Your task to perform on an android device: Go to notification settings Image 0: 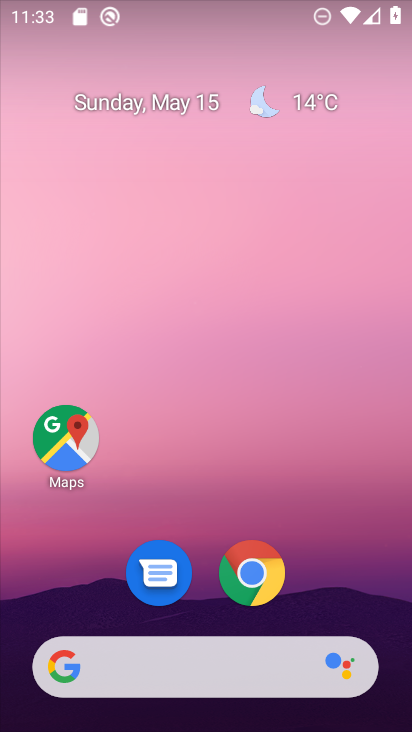
Step 0: drag from (203, 461) to (135, 8)
Your task to perform on an android device: Go to notification settings Image 1: 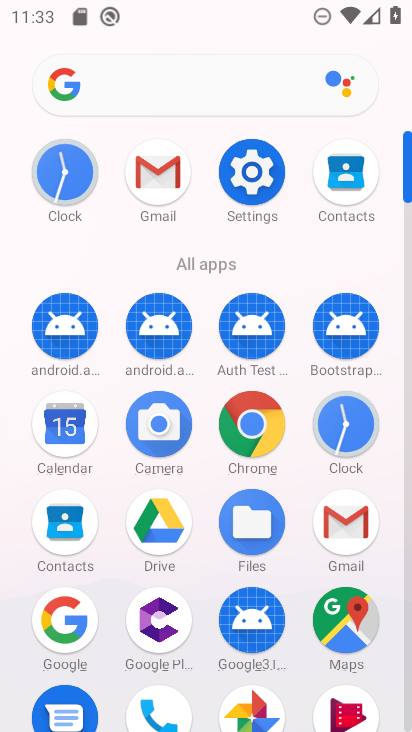
Step 1: click (255, 169)
Your task to perform on an android device: Go to notification settings Image 2: 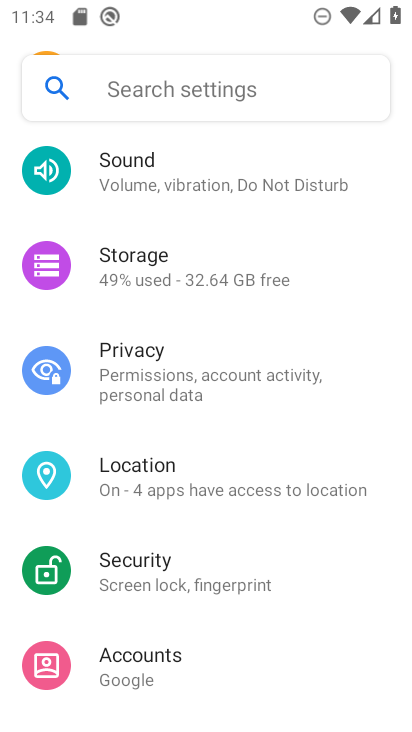
Step 2: drag from (229, 225) to (264, 630)
Your task to perform on an android device: Go to notification settings Image 3: 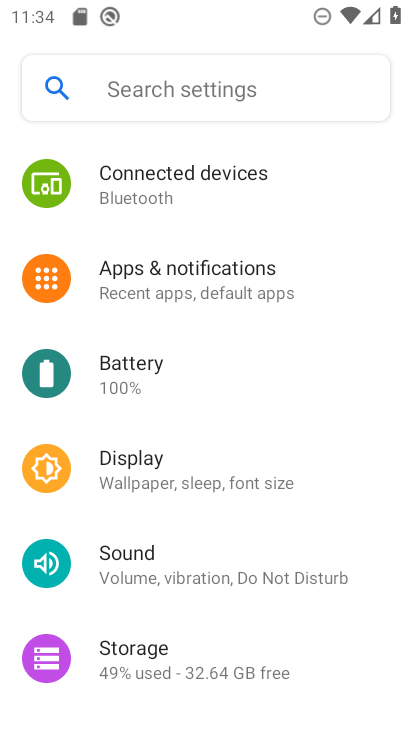
Step 3: click (203, 269)
Your task to perform on an android device: Go to notification settings Image 4: 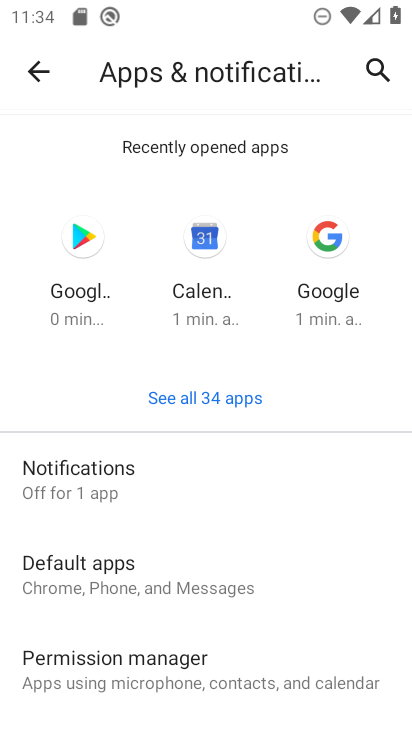
Step 4: task complete